Your task to perform on an android device: Open Google Chrome and click the shortcut for Amazon.com Image 0: 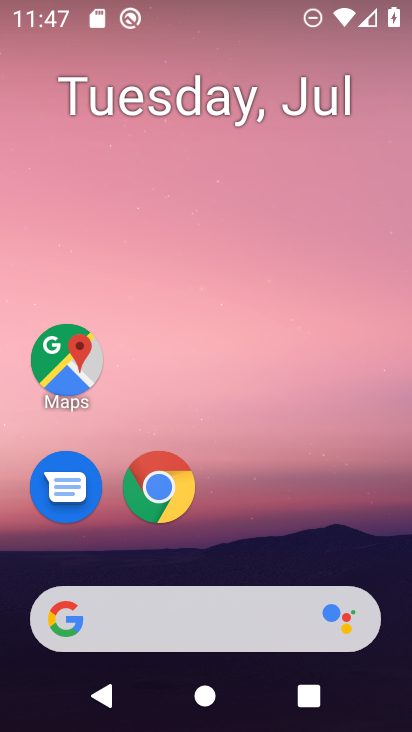
Step 0: click (171, 476)
Your task to perform on an android device: Open Google Chrome and click the shortcut for Amazon.com Image 1: 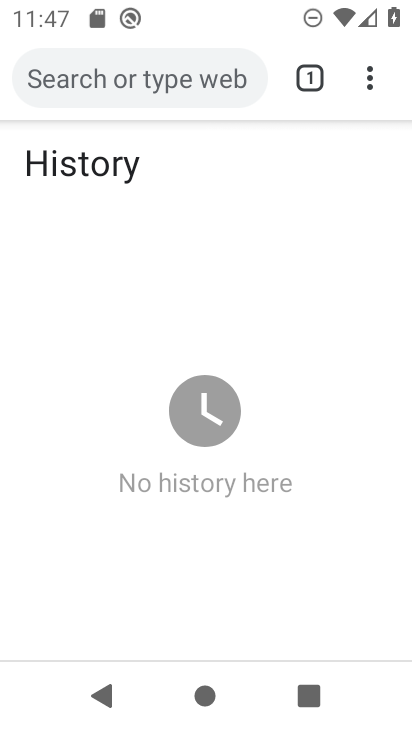
Step 1: click (301, 70)
Your task to perform on an android device: Open Google Chrome and click the shortcut for Amazon.com Image 2: 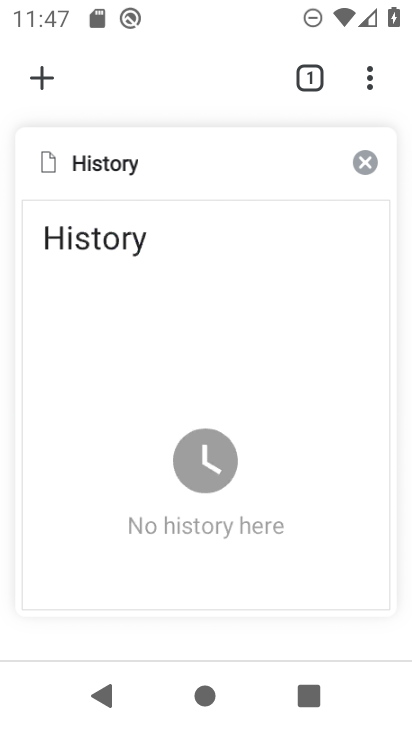
Step 2: click (45, 78)
Your task to perform on an android device: Open Google Chrome and click the shortcut for Amazon.com Image 3: 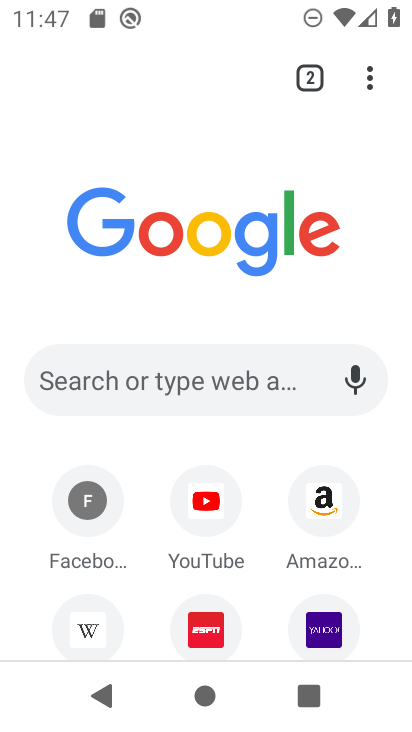
Step 3: click (326, 475)
Your task to perform on an android device: Open Google Chrome and click the shortcut for Amazon.com Image 4: 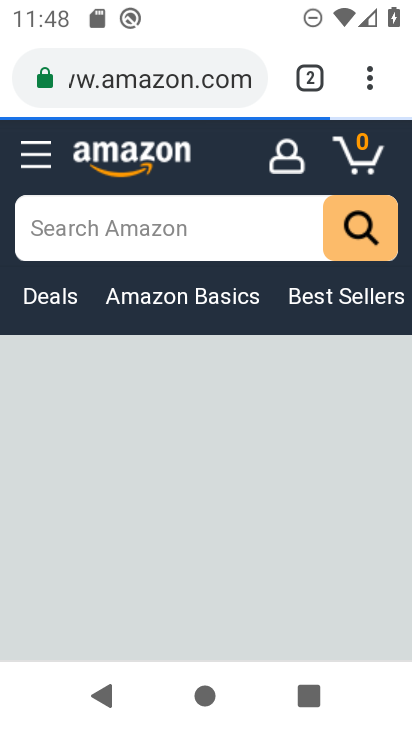
Step 4: task complete